Your task to perform on an android device: turn on data saver in the chrome app Image 0: 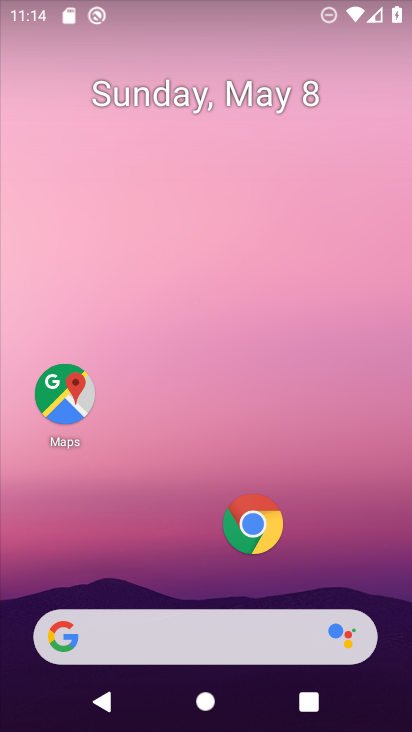
Step 0: drag from (154, 537) to (155, 54)
Your task to perform on an android device: turn on data saver in the chrome app Image 1: 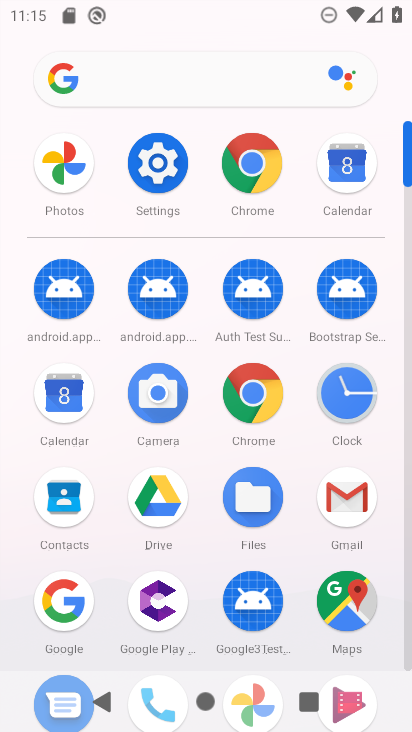
Step 1: click (247, 159)
Your task to perform on an android device: turn on data saver in the chrome app Image 2: 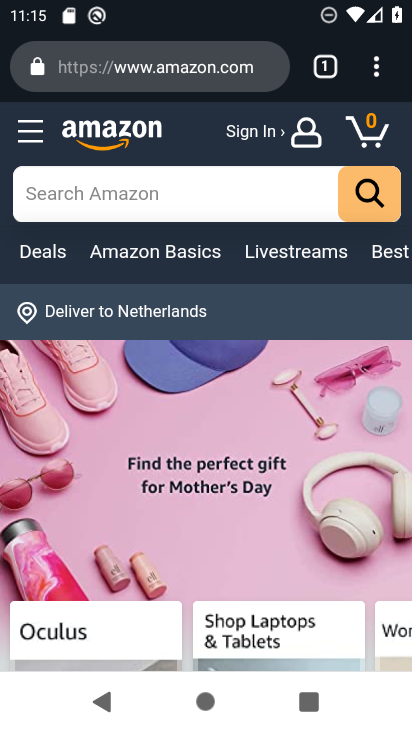
Step 2: click (376, 62)
Your task to perform on an android device: turn on data saver in the chrome app Image 3: 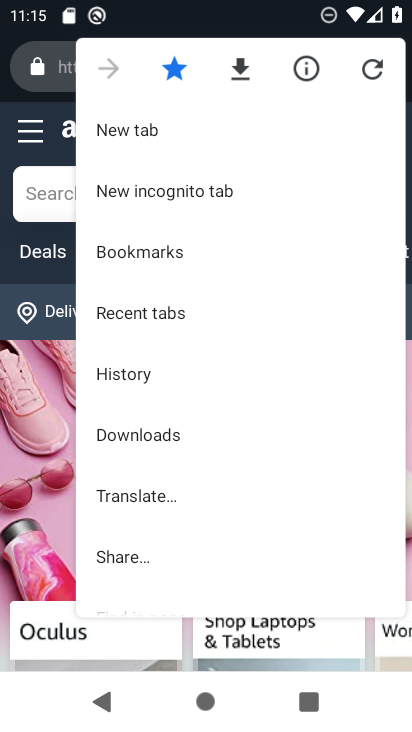
Step 3: drag from (209, 523) to (265, 211)
Your task to perform on an android device: turn on data saver in the chrome app Image 4: 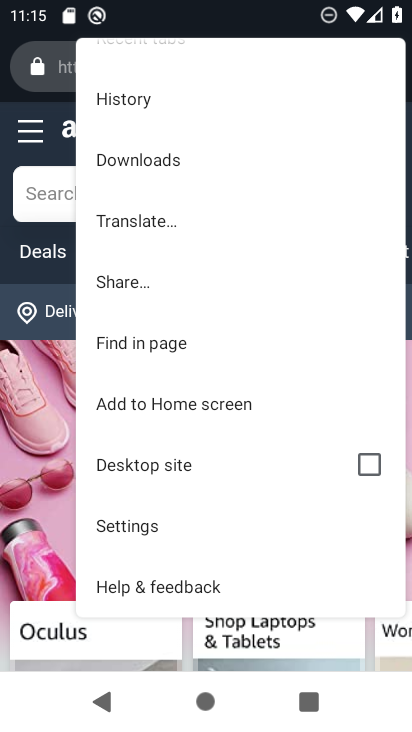
Step 4: click (139, 522)
Your task to perform on an android device: turn on data saver in the chrome app Image 5: 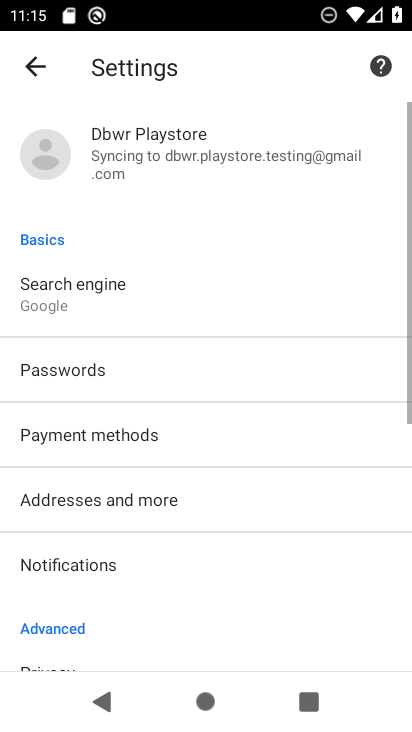
Step 5: drag from (233, 589) to (321, 174)
Your task to perform on an android device: turn on data saver in the chrome app Image 6: 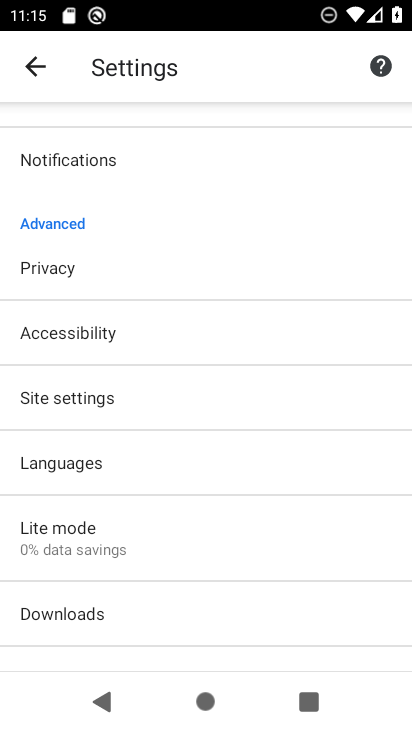
Step 6: click (145, 531)
Your task to perform on an android device: turn on data saver in the chrome app Image 7: 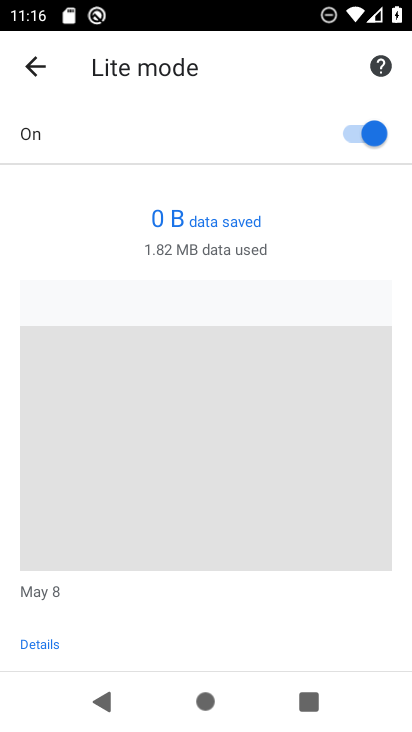
Step 7: task complete